Your task to perform on an android device: Go to calendar. Show me events next week Image 0: 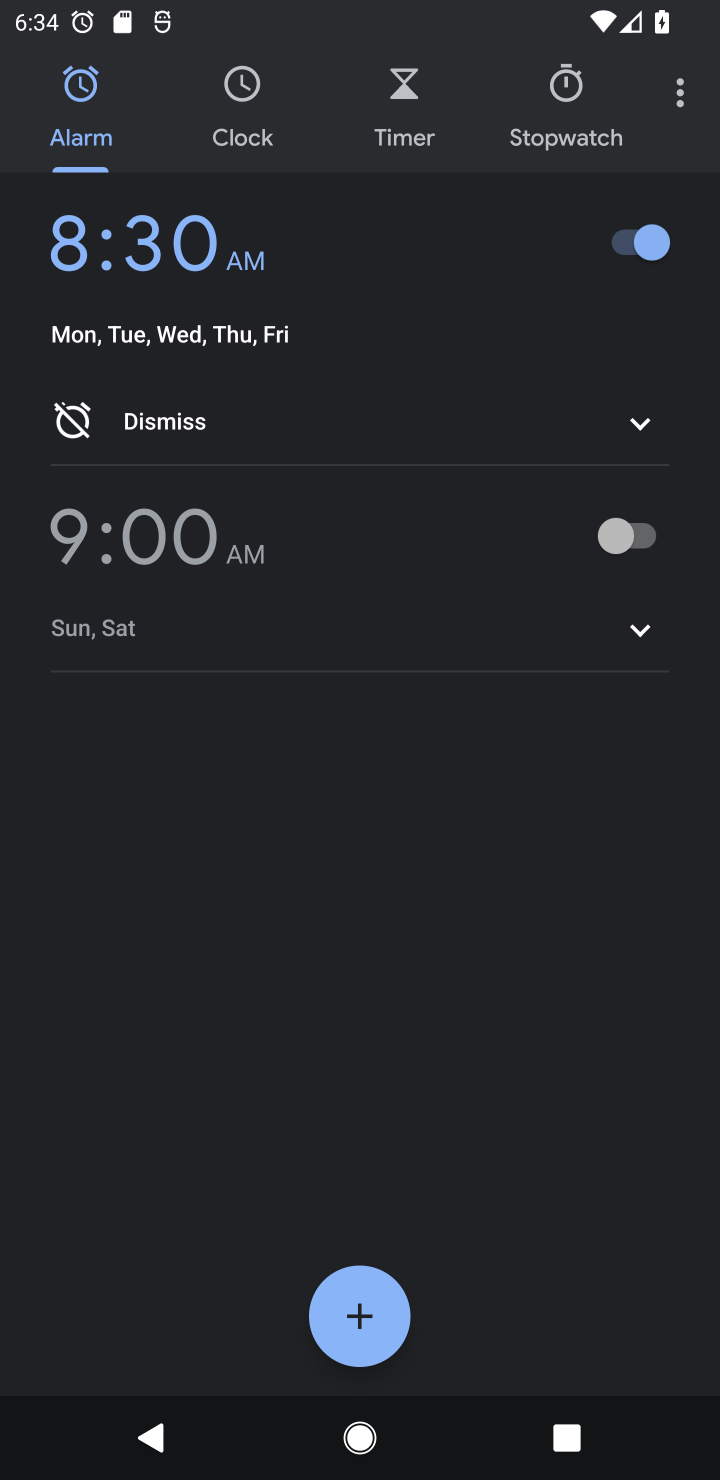
Step 0: press home button
Your task to perform on an android device: Go to calendar. Show me events next week Image 1: 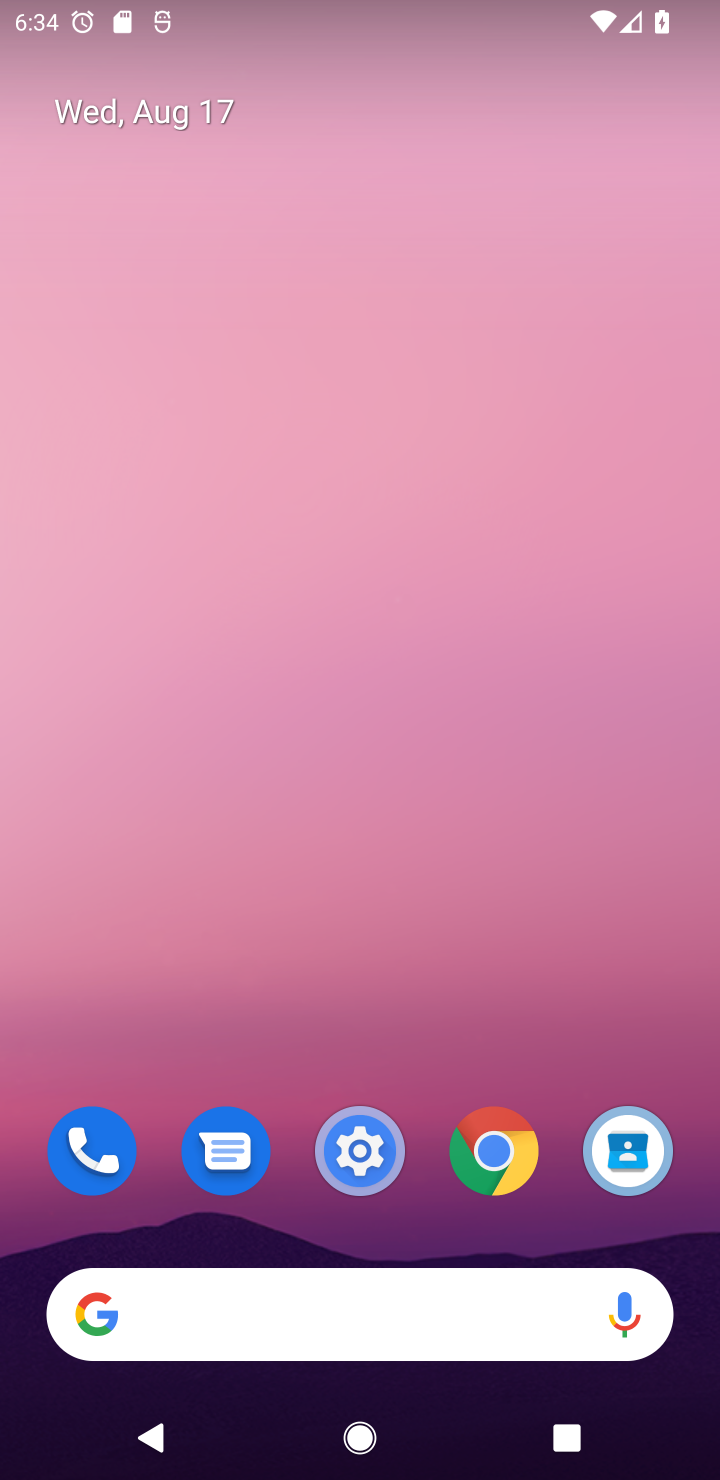
Step 1: drag from (534, 1225) to (449, 127)
Your task to perform on an android device: Go to calendar. Show me events next week Image 2: 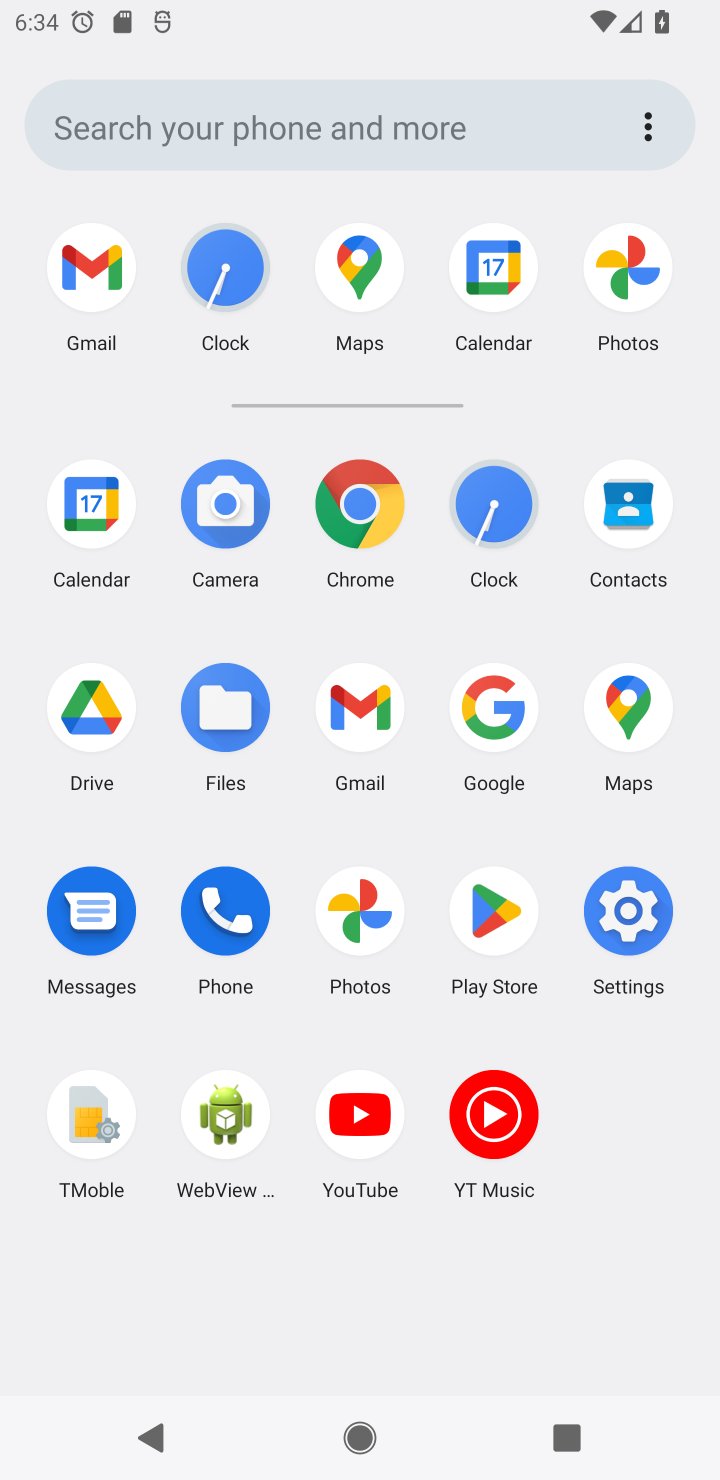
Step 2: click (503, 278)
Your task to perform on an android device: Go to calendar. Show me events next week Image 3: 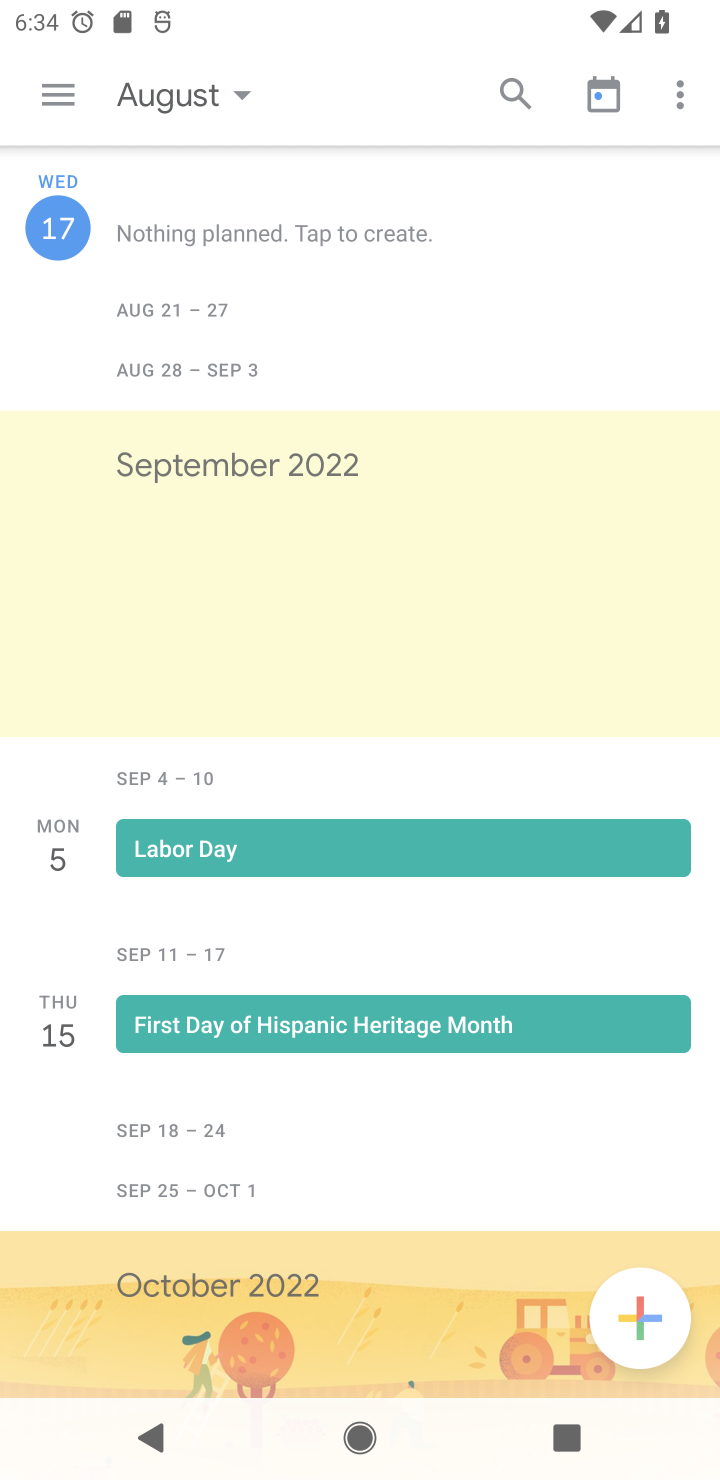
Step 3: task complete